Your task to perform on an android device: View the shopping cart on ebay.com. Add "dell alienware" to the cart on ebay.com, then select checkout. Image 0: 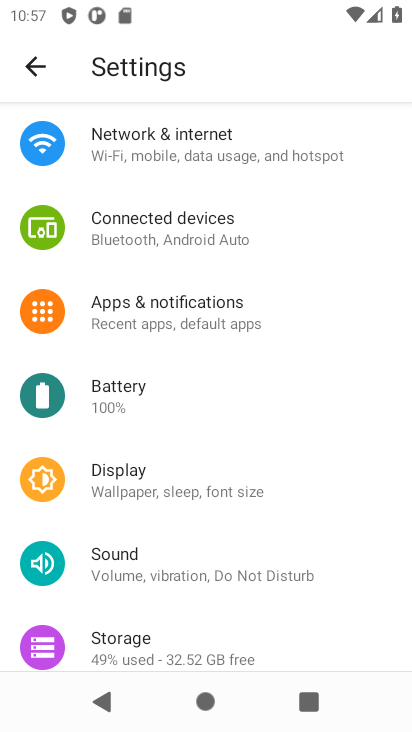
Step 0: press home button
Your task to perform on an android device: View the shopping cart on ebay.com. Add "dell alienware" to the cart on ebay.com, then select checkout. Image 1: 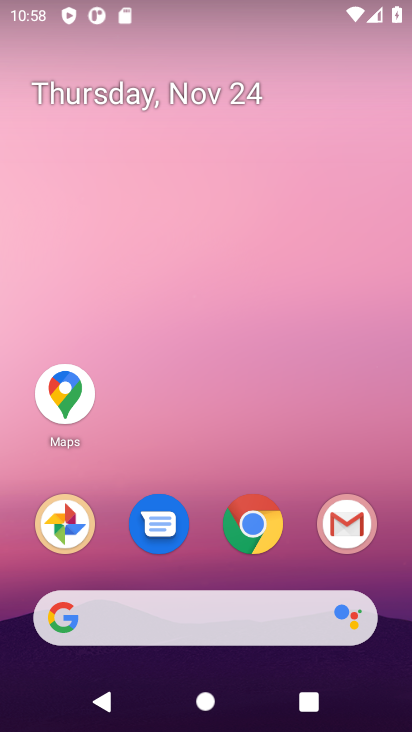
Step 1: click (254, 514)
Your task to perform on an android device: View the shopping cart on ebay.com. Add "dell alienware" to the cart on ebay.com, then select checkout. Image 2: 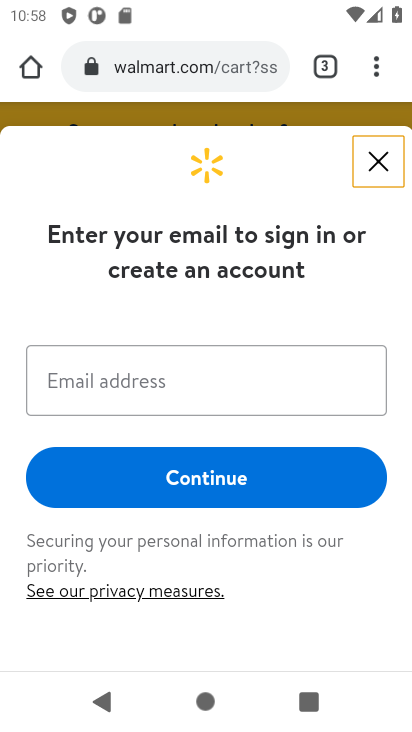
Step 2: click (172, 64)
Your task to perform on an android device: View the shopping cart on ebay.com. Add "dell alienware" to the cart on ebay.com, then select checkout. Image 3: 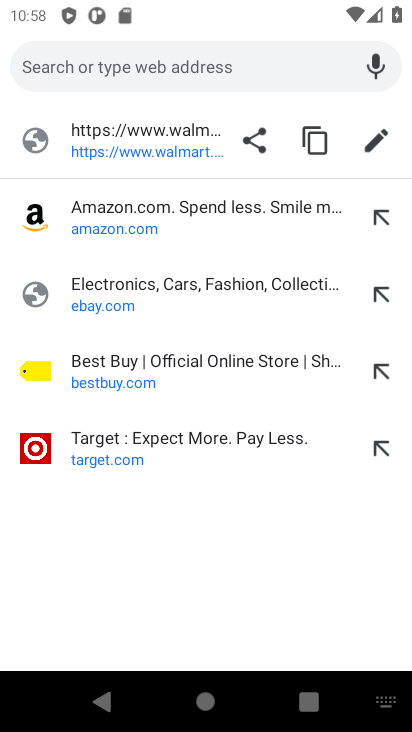
Step 3: click (97, 300)
Your task to perform on an android device: View the shopping cart on ebay.com. Add "dell alienware" to the cart on ebay.com, then select checkout. Image 4: 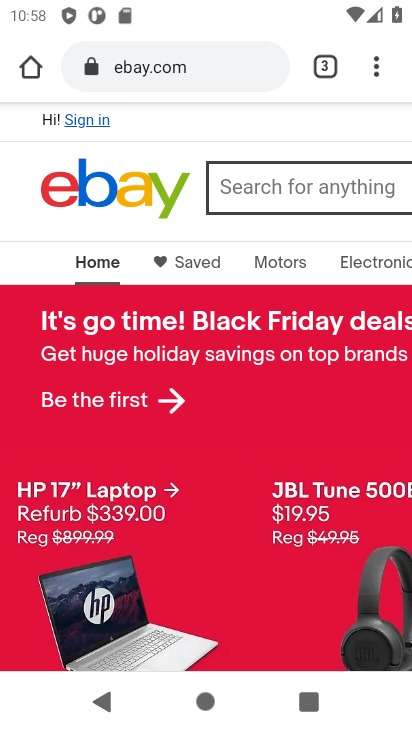
Step 4: drag from (311, 139) to (19, 150)
Your task to perform on an android device: View the shopping cart on ebay.com. Add "dell alienware" to the cart on ebay.com, then select checkout. Image 5: 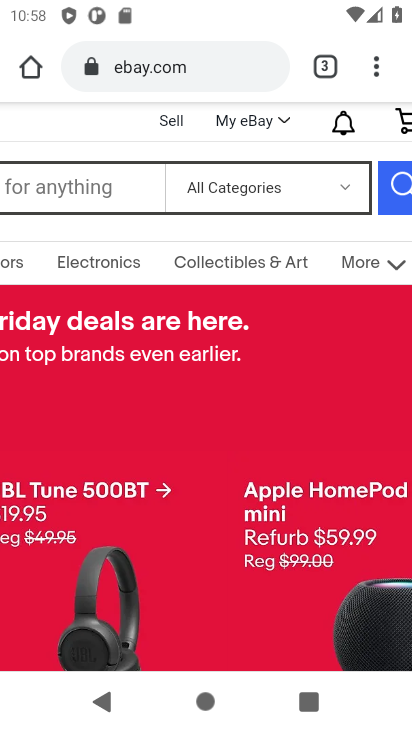
Step 5: click (395, 123)
Your task to perform on an android device: View the shopping cart on ebay.com. Add "dell alienware" to the cart on ebay.com, then select checkout. Image 6: 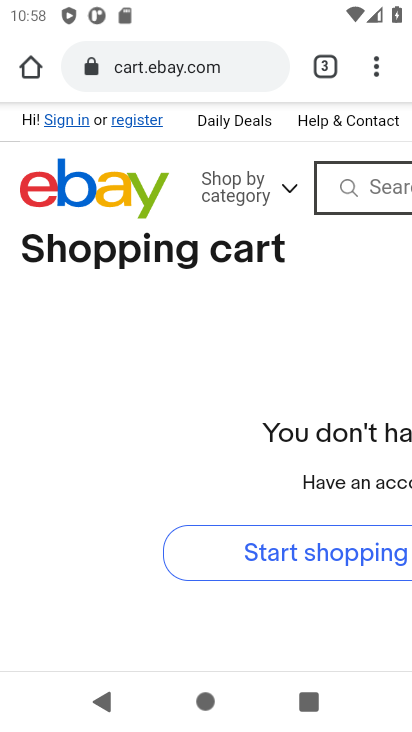
Step 6: click (385, 185)
Your task to perform on an android device: View the shopping cart on ebay.com. Add "dell alienware" to the cart on ebay.com, then select checkout. Image 7: 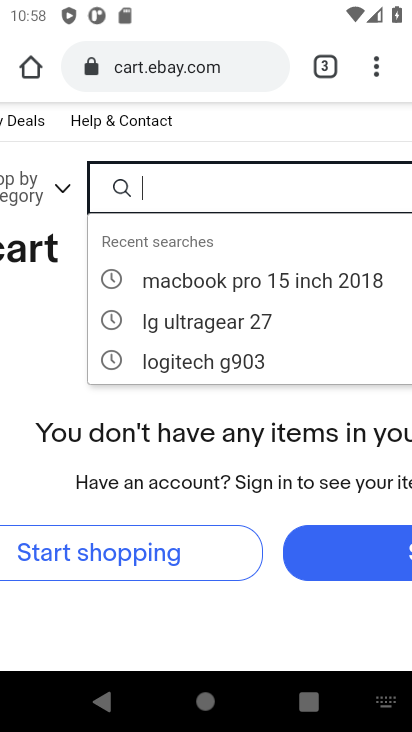
Step 7: type "dell alienware"
Your task to perform on an android device: View the shopping cart on ebay.com. Add "dell alienware" to the cart on ebay.com, then select checkout. Image 8: 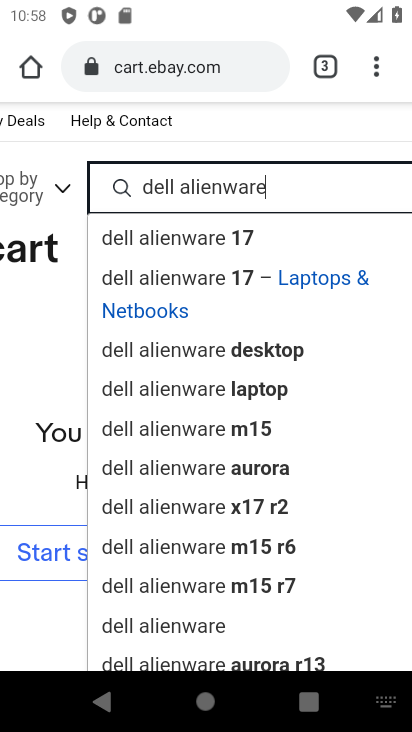
Step 8: click (133, 615)
Your task to perform on an android device: View the shopping cart on ebay.com. Add "dell alienware" to the cart on ebay.com, then select checkout. Image 9: 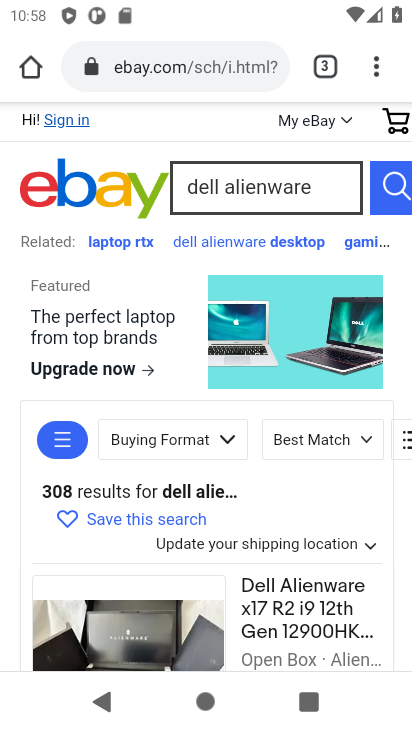
Step 9: drag from (260, 572) to (257, 325)
Your task to perform on an android device: View the shopping cart on ebay.com. Add "dell alienware" to the cart on ebay.com, then select checkout. Image 10: 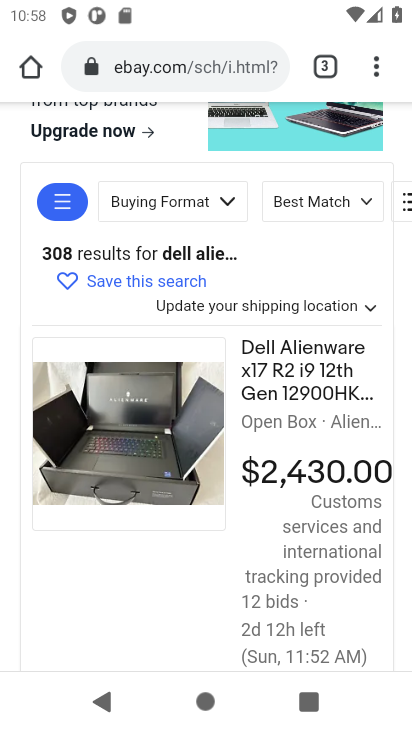
Step 10: drag from (223, 526) to (222, 402)
Your task to perform on an android device: View the shopping cart on ebay.com. Add "dell alienware" to the cart on ebay.com, then select checkout. Image 11: 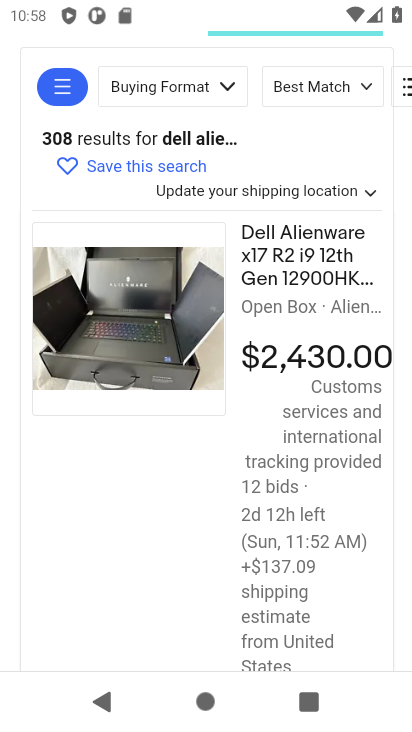
Step 11: click (127, 346)
Your task to perform on an android device: View the shopping cart on ebay.com. Add "dell alienware" to the cart on ebay.com, then select checkout. Image 12: 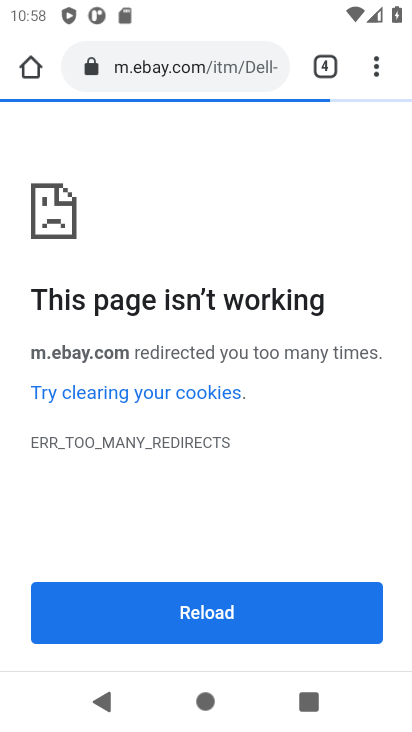
Step 12: task complete